Your task to perform on an android device: Open Yahoo.com Image 0: 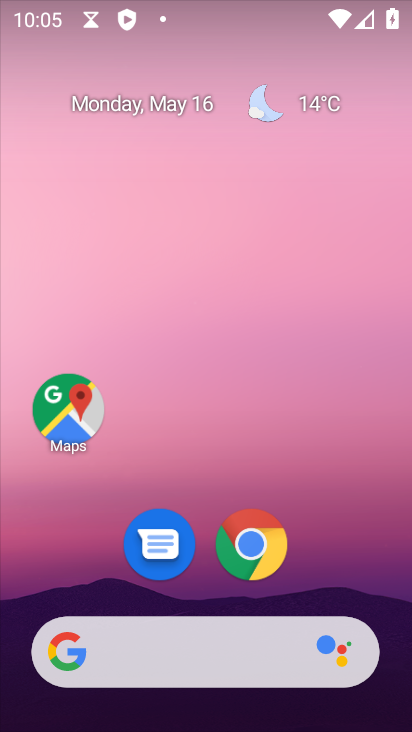
Step 0: click (235, 549)
Your task to perform on an android device: Open Yahoo.com Image 1: 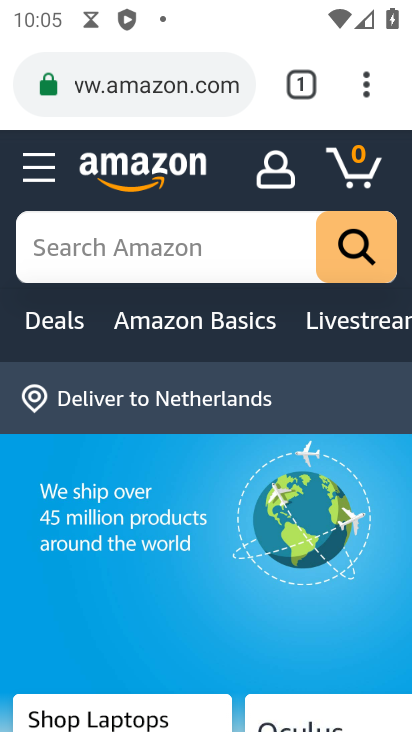
Step 1: click (192, 89)
Your task to perform on an android device: Open Yahoo.com Image 2: 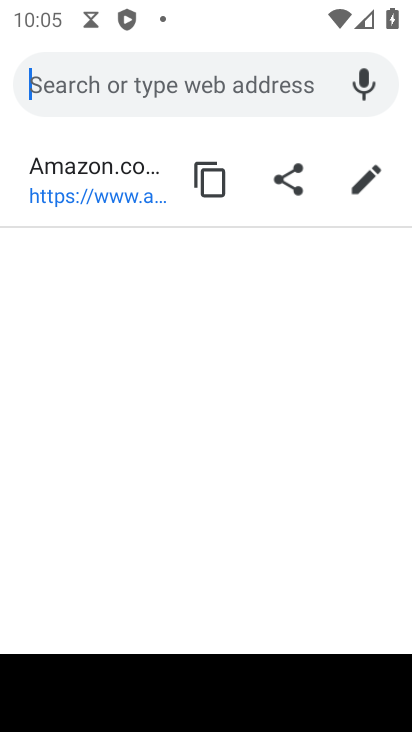
Step 2: type "yahoo.com"
Your task to perform on an android device: Open Yahoo.com Image 3: 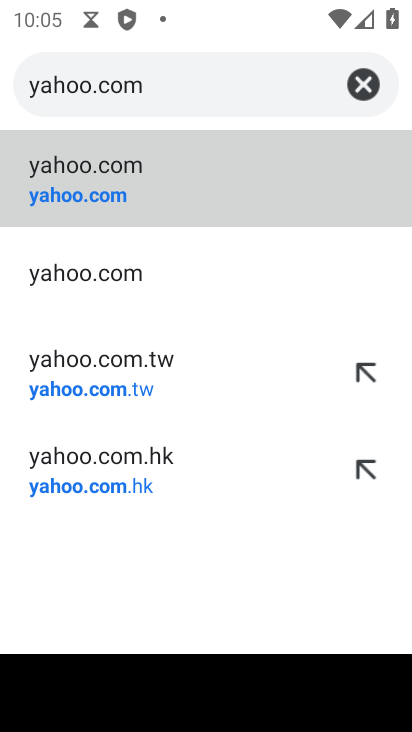
Step 3: click (62, 177)
Your task to perform on an android device: Open Yahoo.com Image 4: 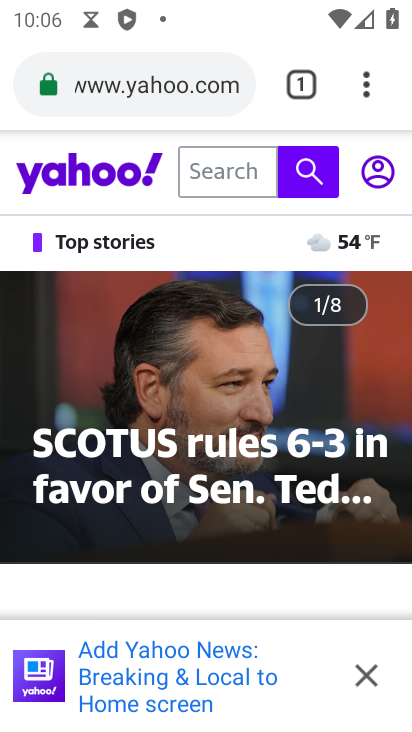
Step 4: task complete